Your task to perform on an android device: turn smart compose on in the gmail app Image 0: 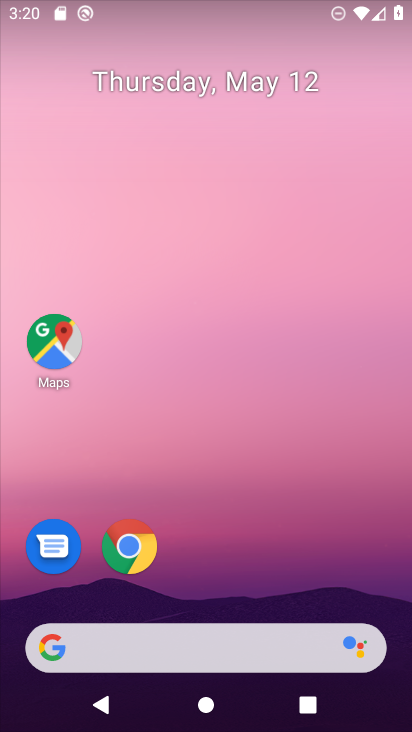
Step 0: drag from (235, 581) to (245, 245)
Your task to perform on an android device: turn smart compose on in the gmail app Image 1: 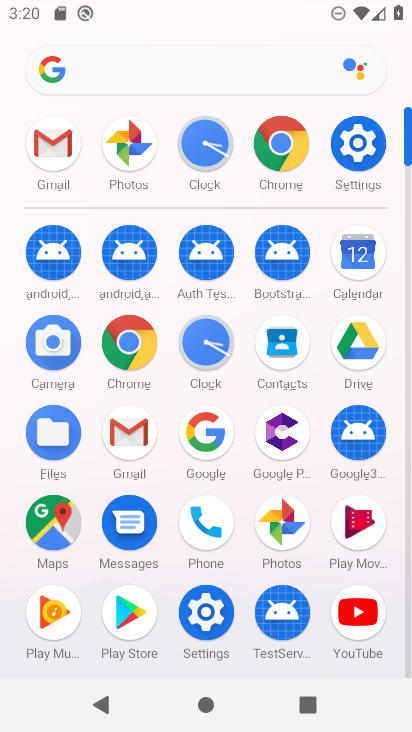
Step 1: click (117, 431)
Your task to perform on an android device: turn smart compose on in the gmail app Image 2: 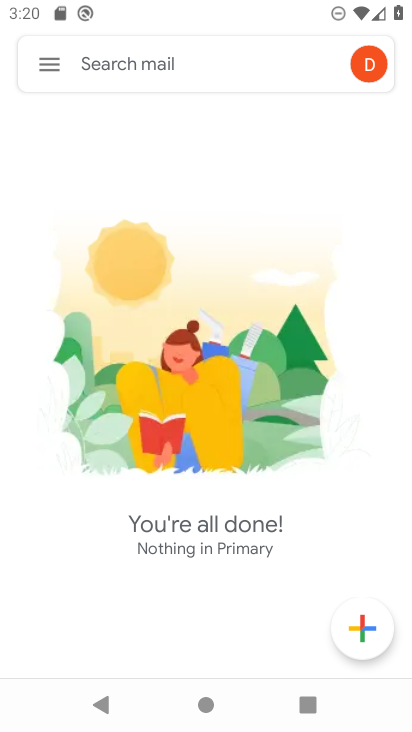
Step 2: click (33, 66)
Your task to perform on an android device: turn smart compose on in the gmail app Image 3: 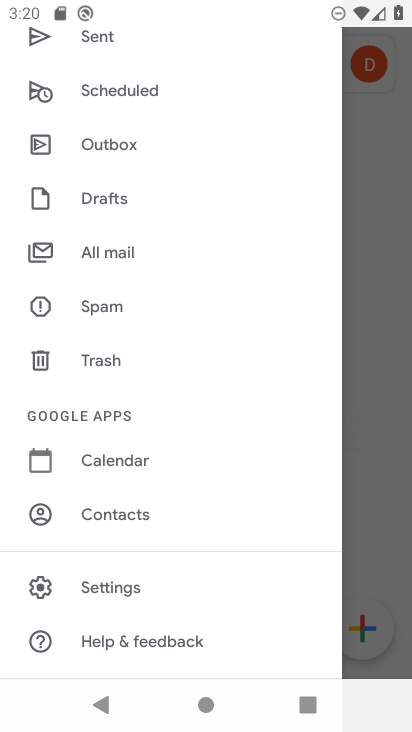
Step 3: click (117, 580)
Your task to perform on an android device: turn smart compose on in the gmail app Image 4: 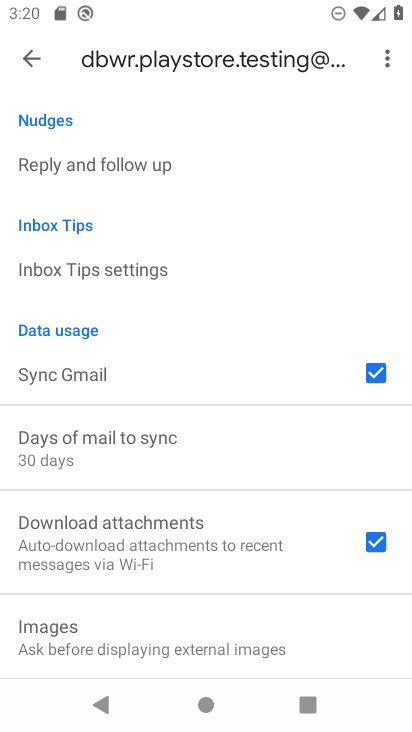
Step 4: drag from (189, 609) to (220, 232)
Your task to perform on an android device: turn smart compose on in the gmail app Image 5: 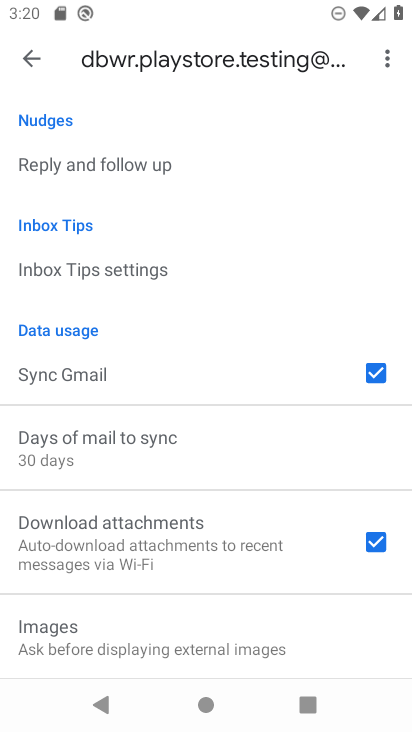
Step 5: drag from (194, 589) to (197, 184)
Your task to perform on an android device: turn smart compose on in the gmail app Image 6: 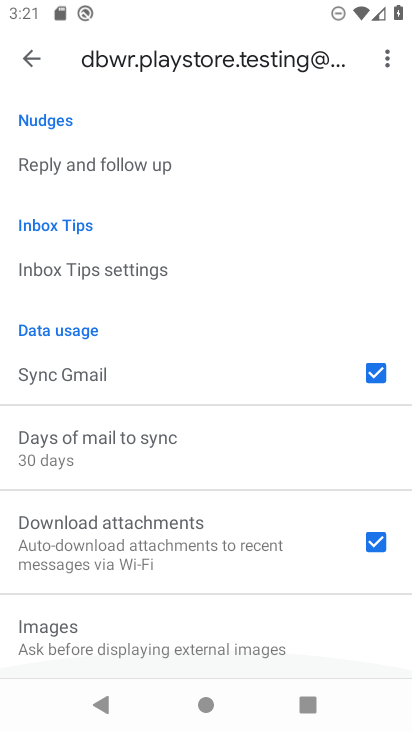
Step 6: drag from (128, 590) to (170, 295)
Your task to perform on an android device: turn smart compose on in the gmail app Image 7: 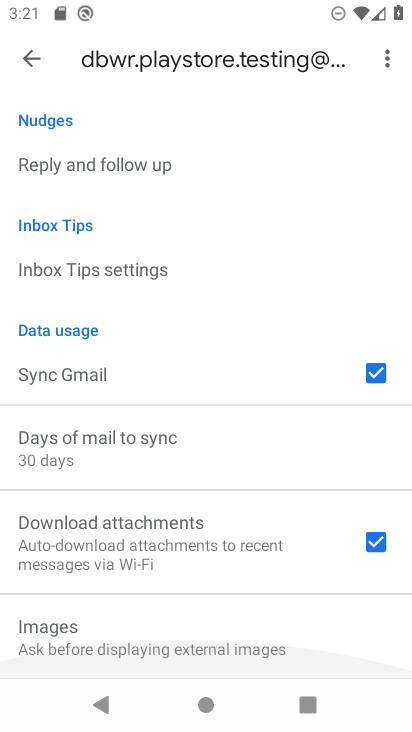
Step 7: drag from (145, 432) to (168, 259)
Your task to perform on an android device: turn smart compose on in the gmail app Image 8: 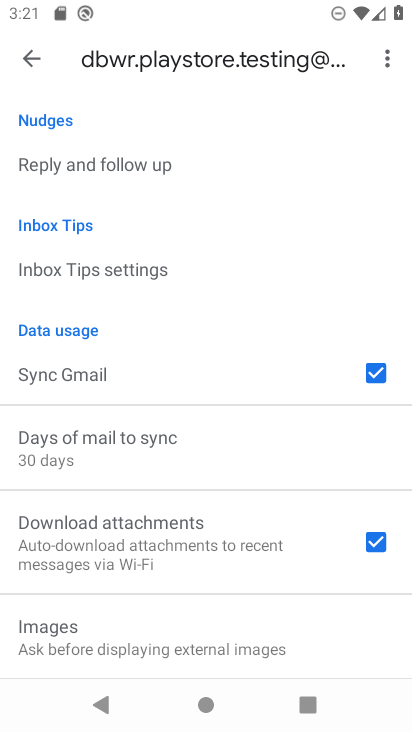
Step 8: drag from (111, 509) to (124, 383)
Your task to perform on an android device: turn smart compose on in the gmail app Image 9: 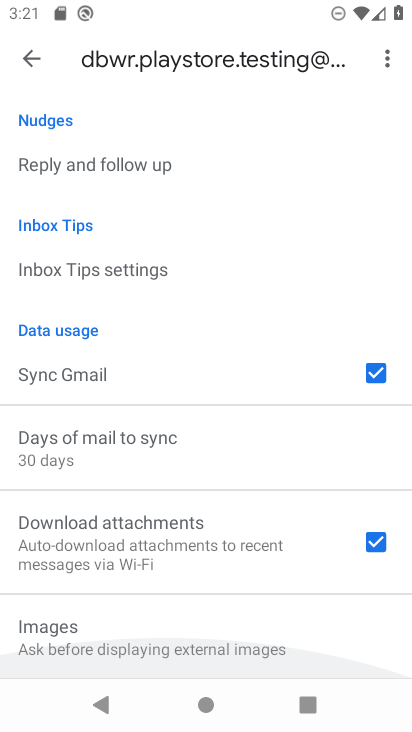
Step 9: drag from (133, 582) to (181, 403)
Your task to perform on an android device: turn smart compose on in the gmail app Image 10: 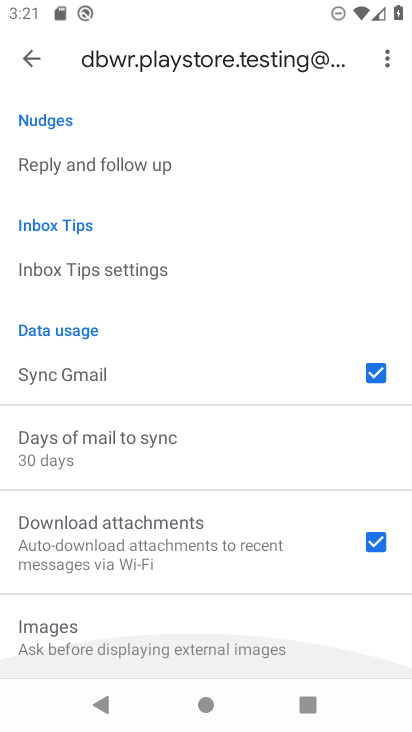
Step 10: drag from (192, 584) to (226, 373)
Your task to perform on an android device: turn smart compose on in the gmail app Image 11: 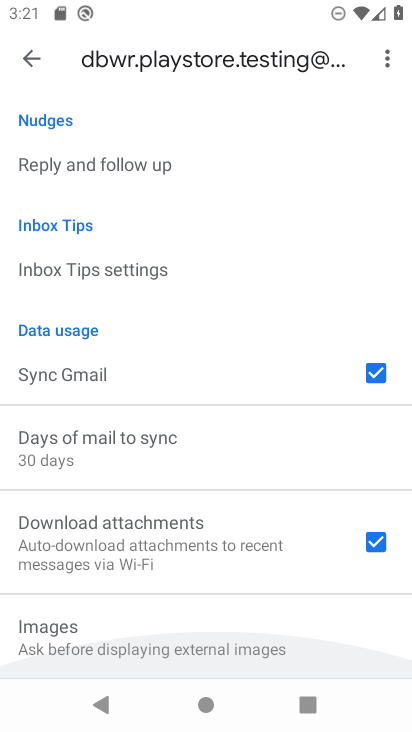
Step 11: drag from (198, 513) to (205, 404)
Your task to perform on an android device: turn smart compose on in the gmail app Image 12: 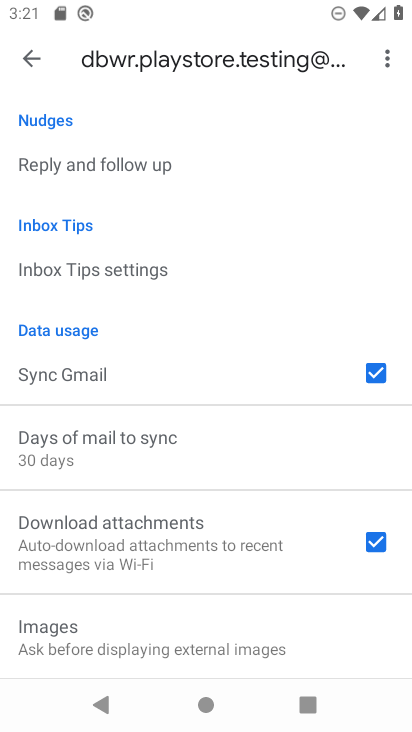
Step 12: click (37, 68)
Your task to perform on an android device: turn smart compose on in the gmail app Image 13: 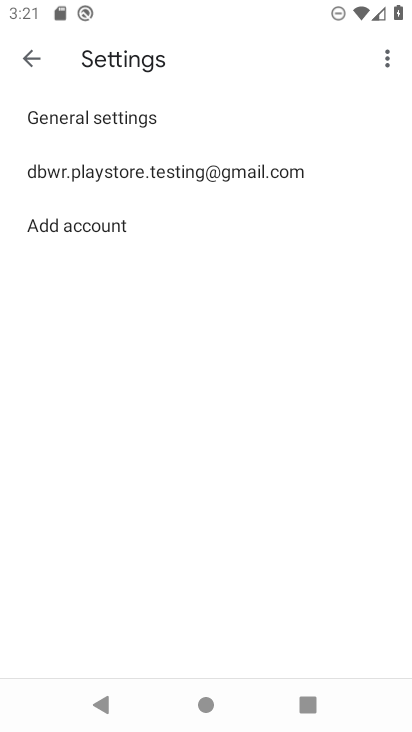
Step 13: click (154, 175)
Your task to perform on an android device: turn smart compose on in the gmail app Image 14: 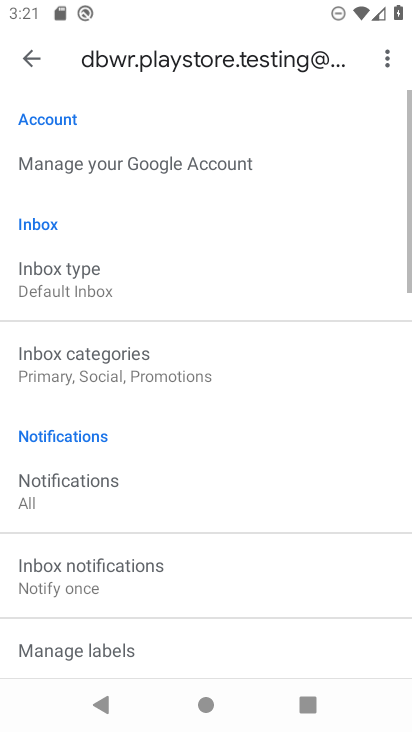
Step 14: task complete